Your task to perform on an android device: turn on bluetooth scan Image 0: 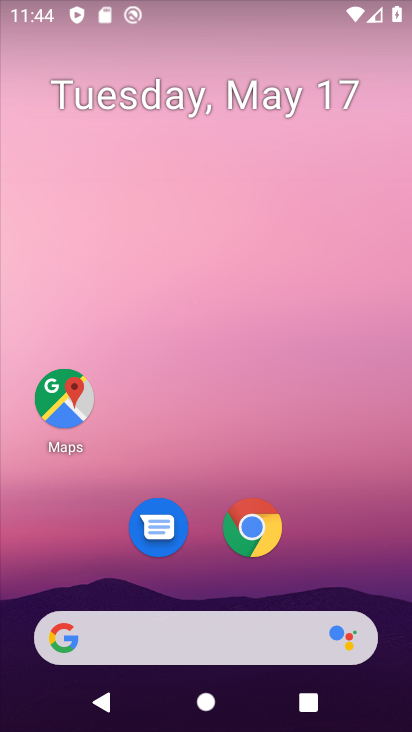
Step 0: drag from (339, 415) to (255, 40)
Your task to perform on an android device: turn on bluetooth scan Image 1: 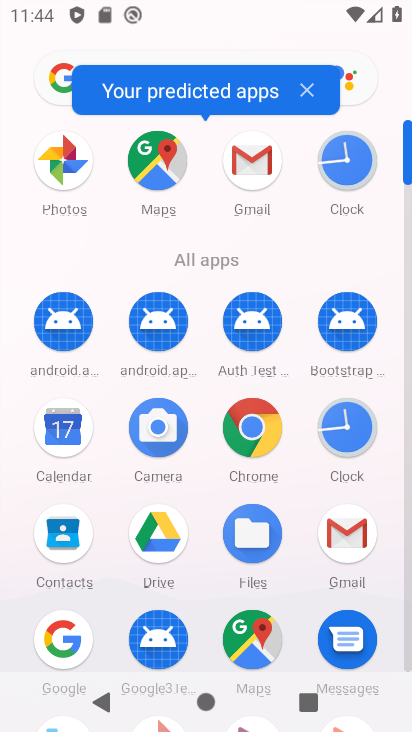
Step 1: drag from (289, 533) to (175, 78)
Your task to perform on an android device: turn on bluetooth scan Image 2: 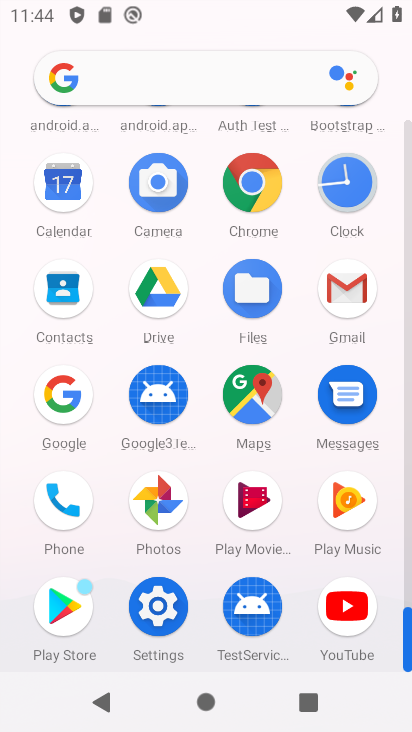
Step 2: click (175, 604)
Your task to perform on an android device: turn on bluetooth scan Image 3: 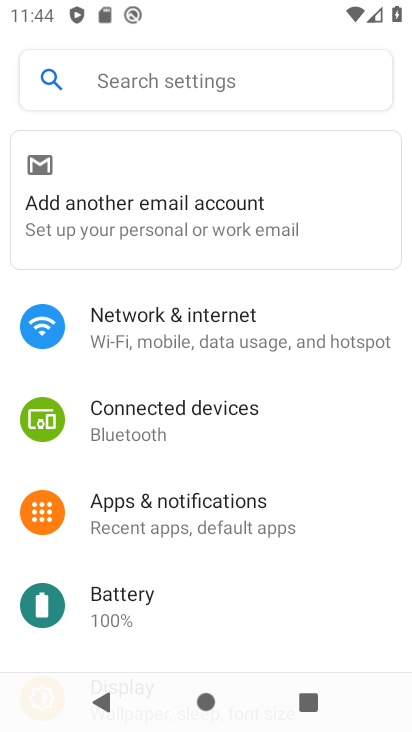
Step 3: drag from (266, 563) to (246, 66)
Your task to perform on an android device: turn on bluetooth scan Image 4: 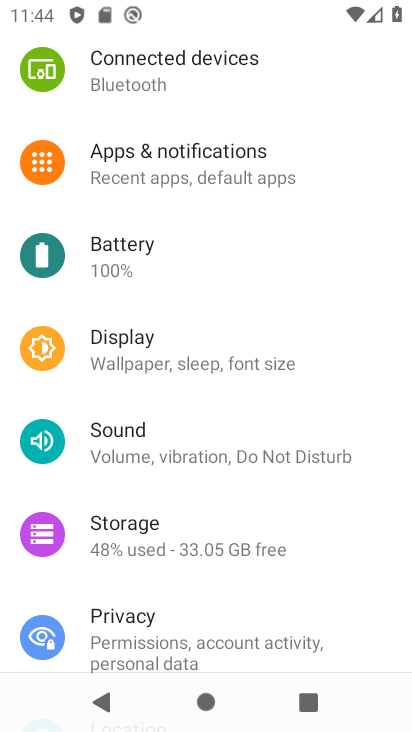
Step 4: drag from (236, 514) to (225, 117)
Your task to perform on an android device: turn on bluetooth scan Image 5: 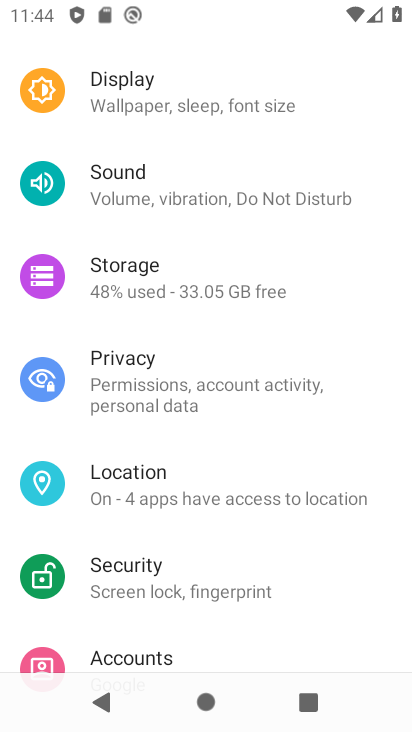
Step 5: click (194, 490)
Your task to perform on an android device: turn on bluetooth scan Image 6: 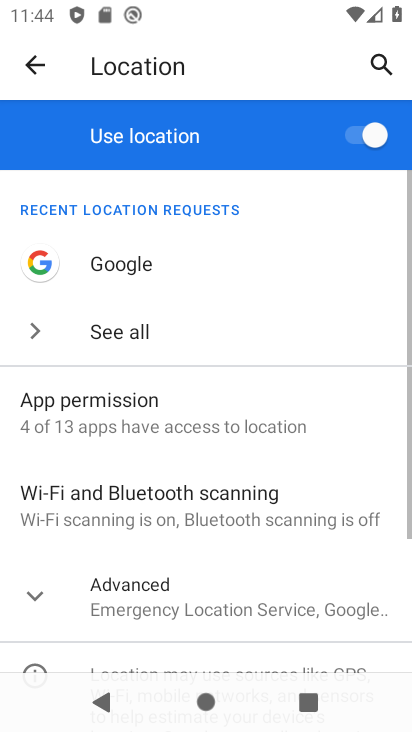
Step 6: click (264, 468)
Your task to perform on an android device: turn on bluetooth scan Image 7: 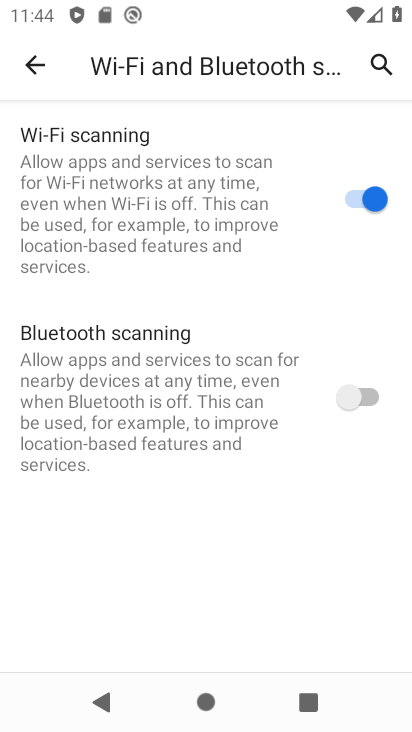
Step 7: click (352, 416)
Your task to perform on an android device: turn on bluetooth scan Image 8: 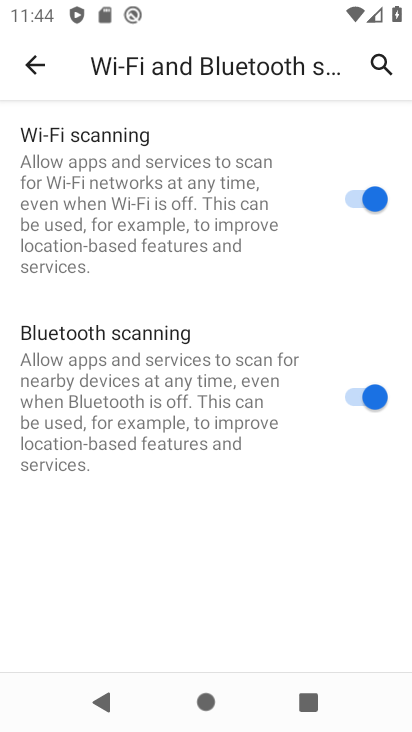
Step 8: task complete